Your task to perform on an android device: toggle notification dots Image 0: 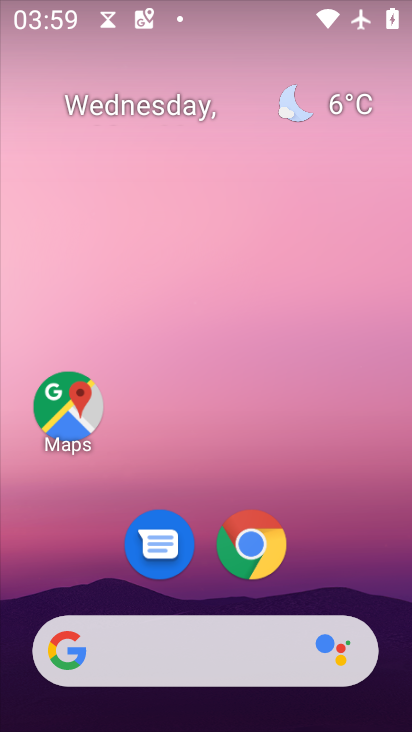
Step 0: drag from (353, 591) to (303, 98)
Your task to perform on an android device: toggle notification dots Image 1: 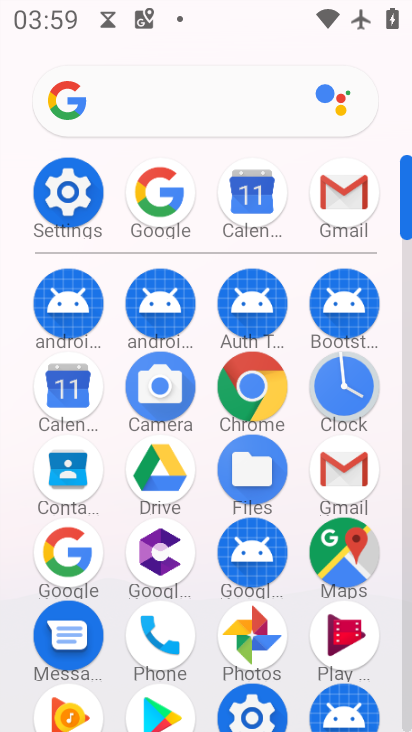
Step 1: click (47, 204)
Your task to perform on an android device: toggle notification dots Image 2: 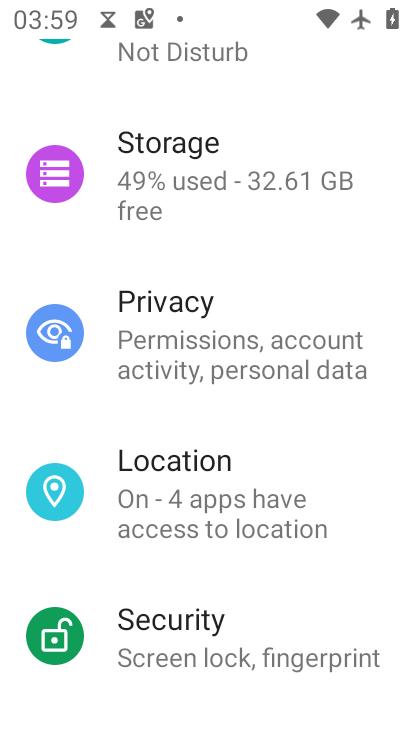
Step 2: drag from (146, 299) to (156, 625)
Your task to perform on an android device: toggle notification dots Image 3: 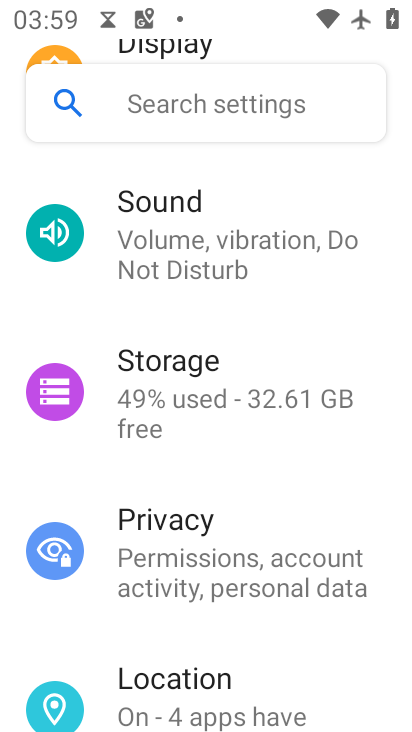
Step 3: drag from (201, 280) to (227, 626)
Your task to perform on an android device: toggle notification dots Image 4: 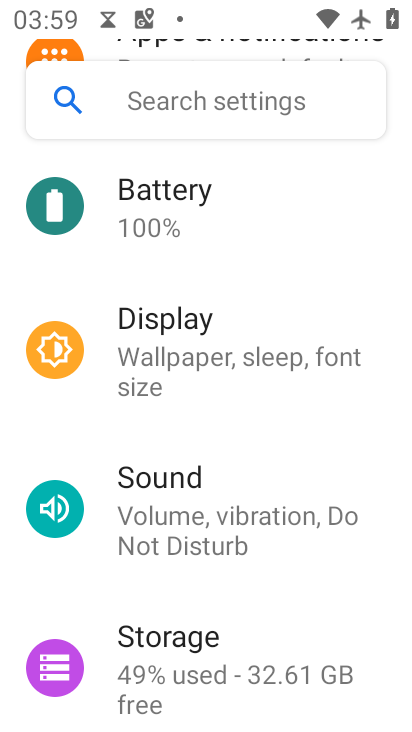
Step 4: drag from (209, 295) to (220, 682)
Your task to perform on an android device: toggle notification dots Image 5: 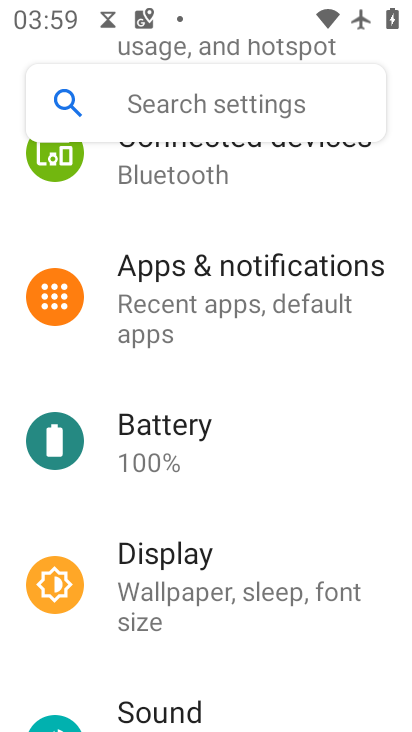
Step 5: click (223, 310)
Your task to perform on an android device: toggle notification dots Image 6: 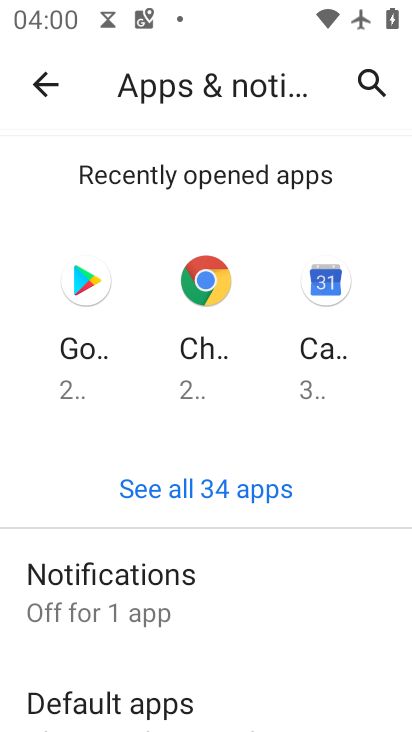
Step 6: click (229, 579)
Your task to perform on an android device: toggle notification dots Image 7: 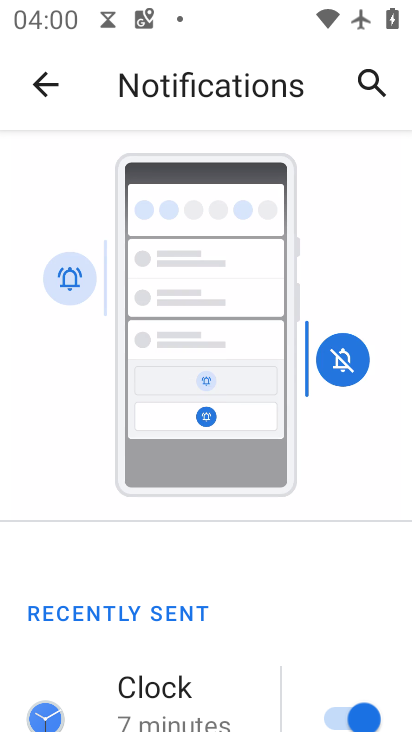
Step 7: drag from (148, 716) to (209, 334)
Your task to perform on an android device: toggle notification dots Image 8: 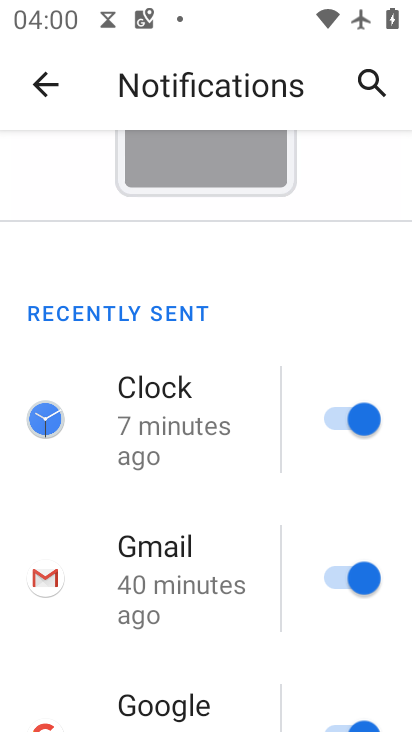
Step 8: drag from (144, 684) to (140, 423)
Your task to perform on an android device: toggle notification dots Image 9: 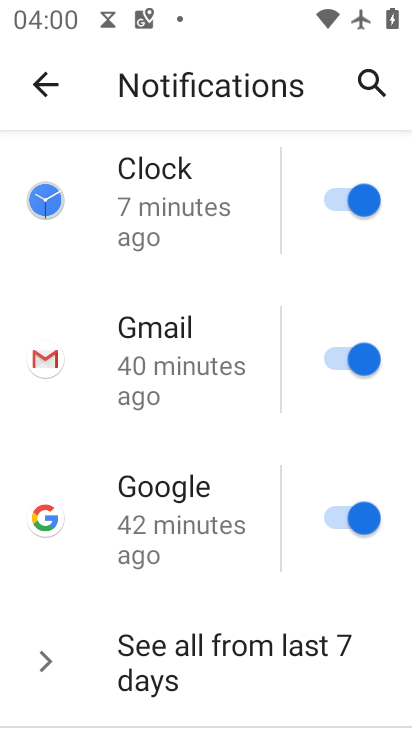
Step 9: drag from (118, 647) to (160, 357)
Your task to perform on an android device: toggle notification dots Image 10: 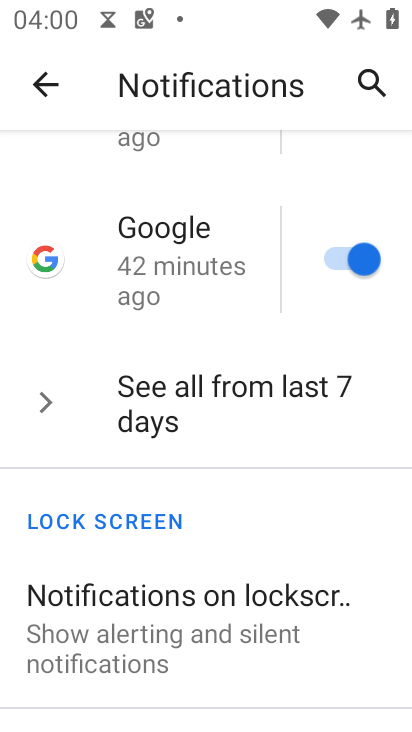
Step 10: drag from (145, 655) to (134, 368)
Your task to perform on an android device: toggle notification dots Image 11: 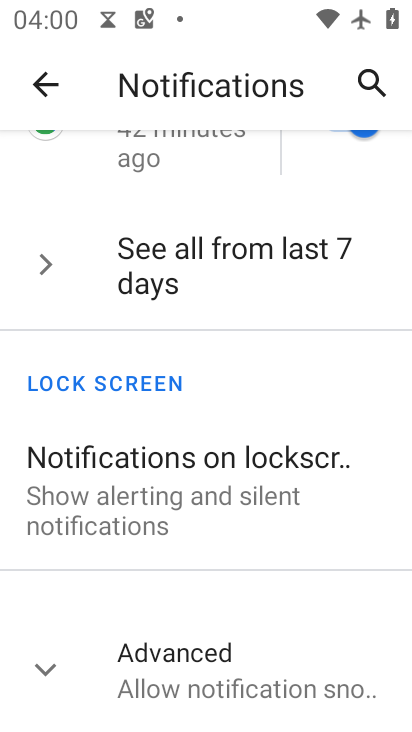
Step 11: click (132, 681)
Your task to perform on an android device: toggle notification dots Image 12: 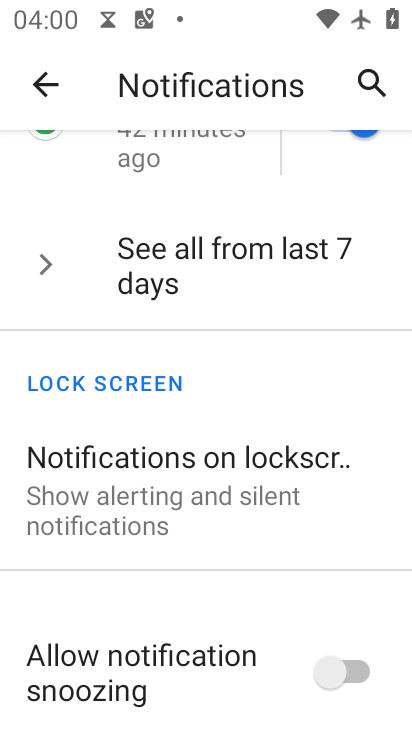
Step 12: drag from (139, 700) to (143, 354)
Your task to perform on an android device: toggle notification dots Image 13: 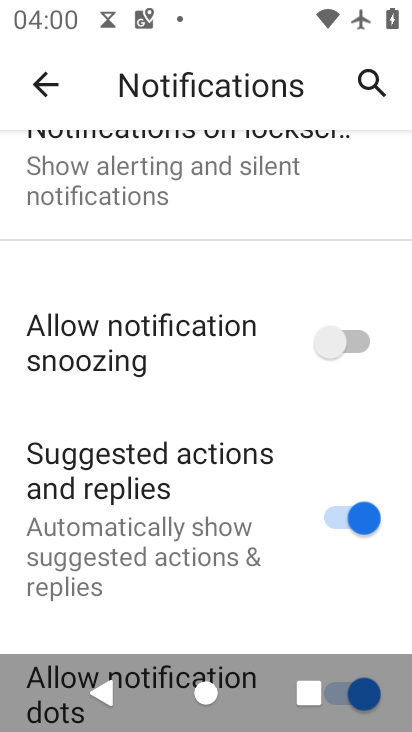
Step 13: drag from (206, 570) to (213, 314)
Your task to perform on an android device: toggle notification dots Image 14: 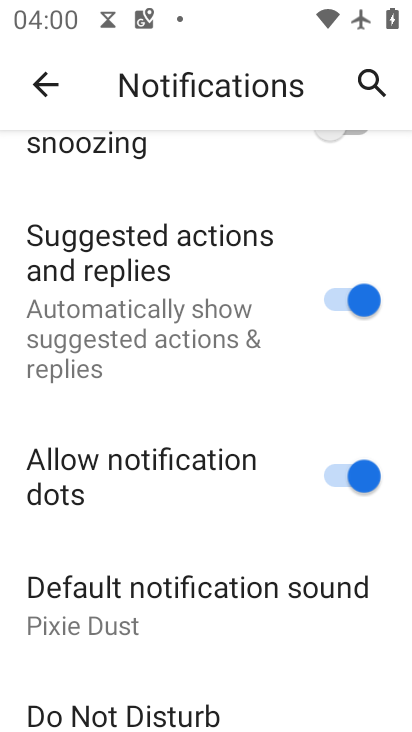
Step 14: click (306, 478)
Your task to perform on an android device: toggle notification dots Image 15: 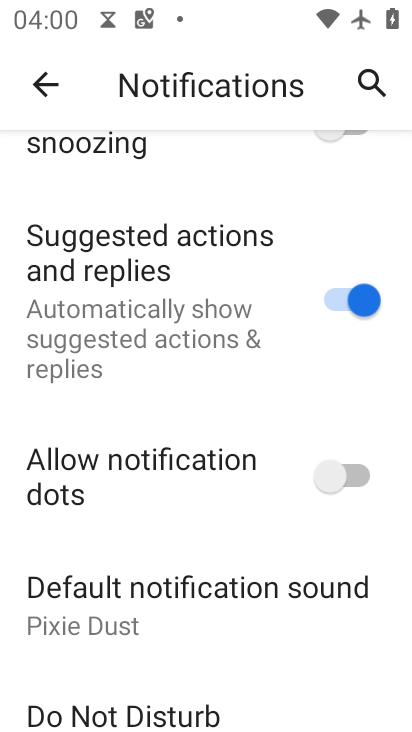
Step 15: task complete